Your task to perform on an android device: Open display settings Image 0: 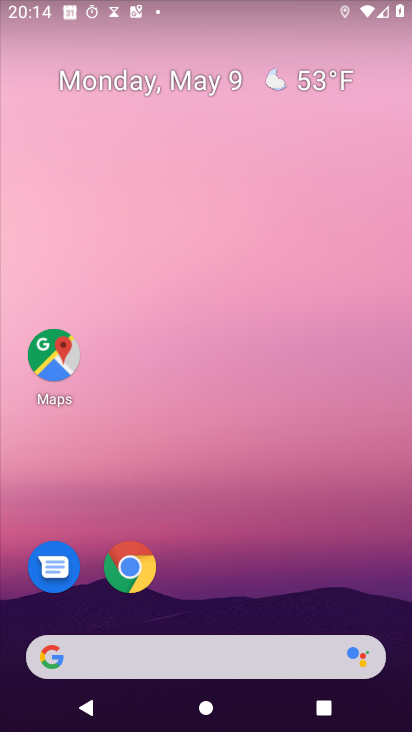
Step 0: drag from (197, 594) to (201, 11)
Your task to perform on an android device: Open display settings Image 1: 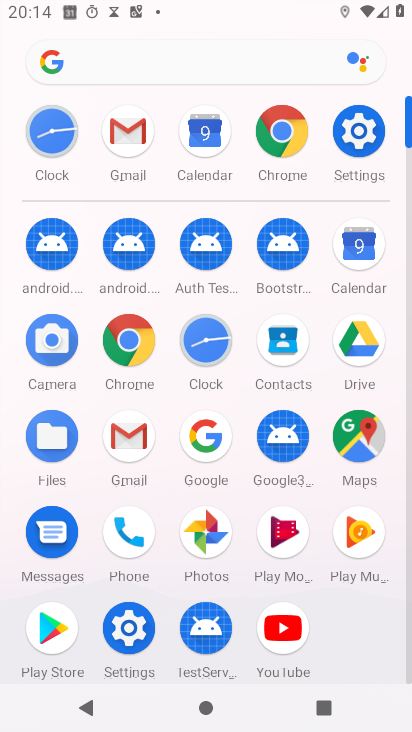
Step 1: click (351, 144)
Your task to perform on an android device: Open display settings Image 2: 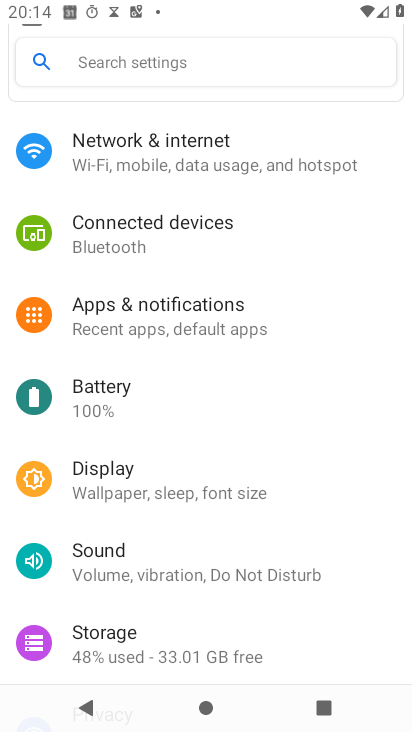
Step 2: click (136, 478)
Your task to perform on an android device: Open display settings Image 3: 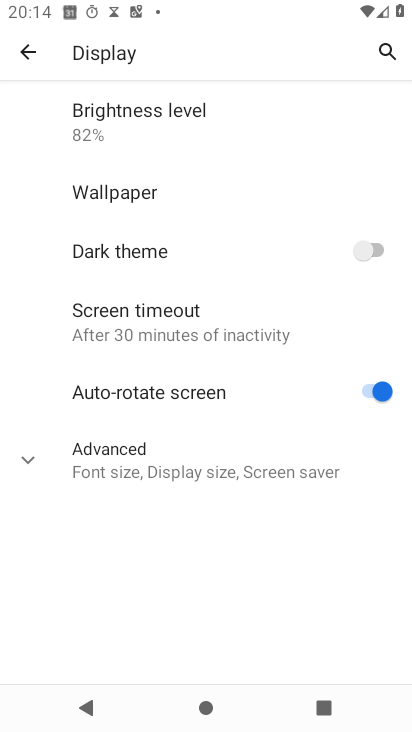
Step 3: task complete